Your task to perform on an android device: Search for pizza restaurants on Maps Image 0: 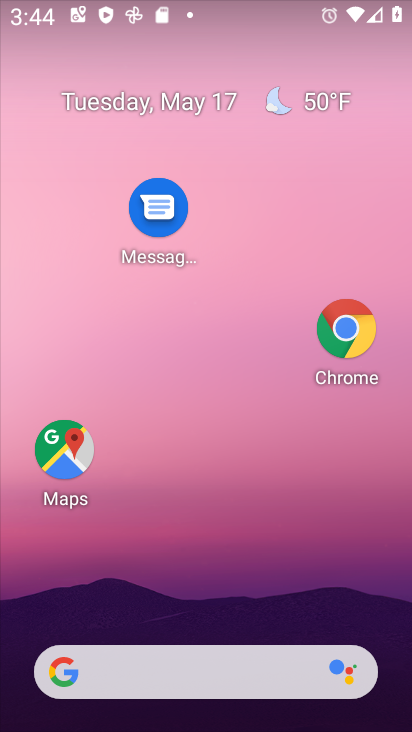
Step 0: drag from (227, 593) to (221, 233)
Your task to perform on an android device: Search for pizza restaurants on Maps Image 1: 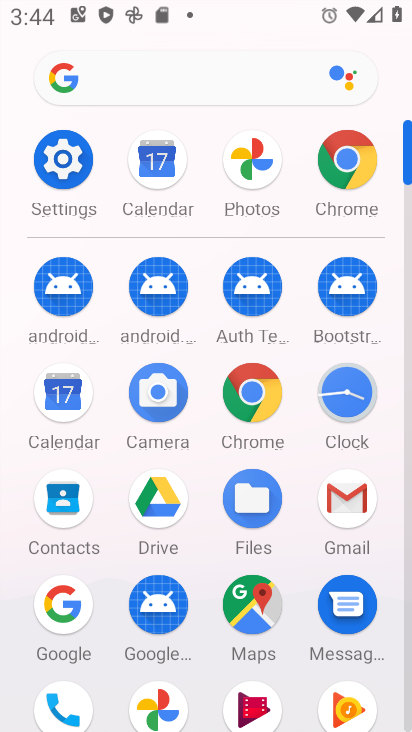
Step 1: click (261, 603)
Your task to perform on an android device: Search for pizza restaurants on Maps Image 2: 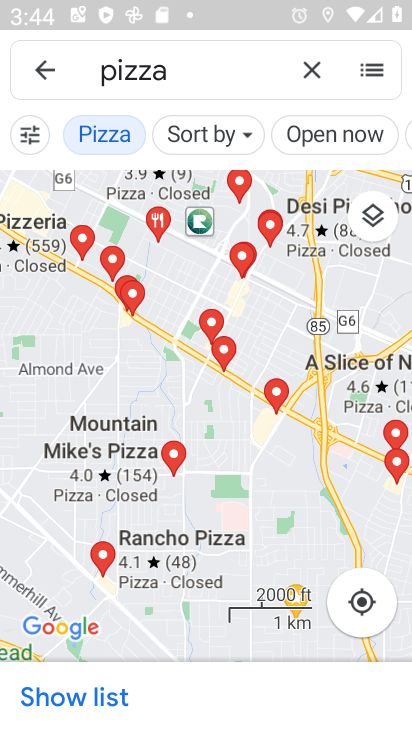
Step 2: task complete